Your task to perform on an android device: Open Youtube and go to "Your channel" Image 0: 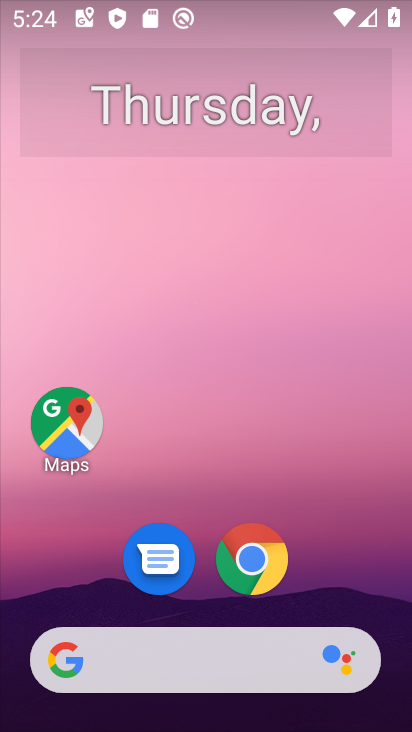
Step 0: drag from (246, 580) to (274, 9)
Your task to perform on an android device: Open Youtube and go to "Your channel" Image 1: 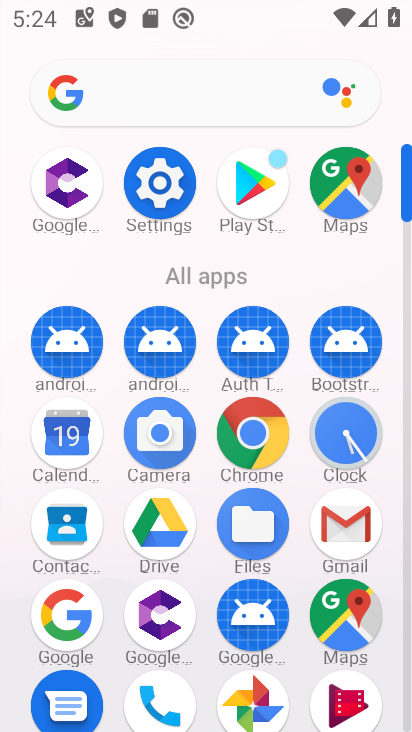
Step 1: drag from (295, 632) to (337, 101)
Your task to perform on an android device: Open Youtube and go to "Your channel" Image 2: 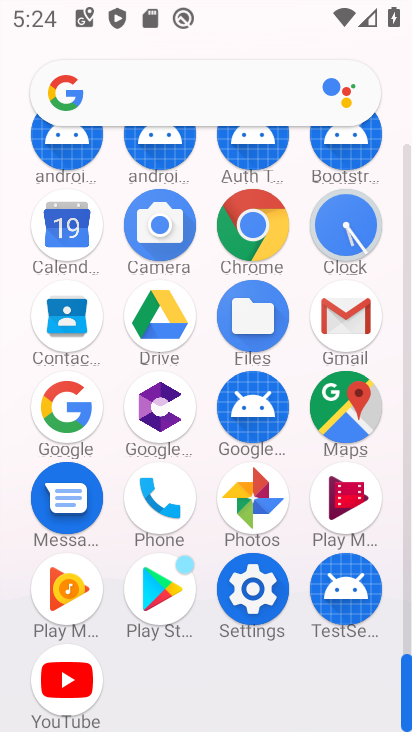
Step 2: click (47, 683)
Your task to perform on an android device: Open Youtube and go to "Your channel" Image 3: 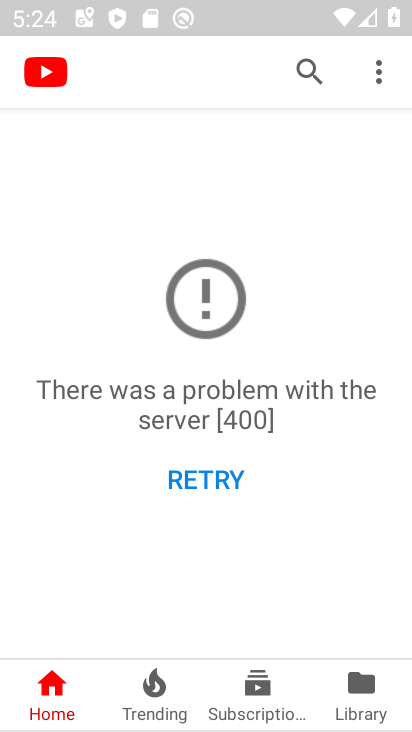
Step 3: click (209, 466)
Your task to perform on an android device: Open Youtube and go to "Your channel" Image 4: 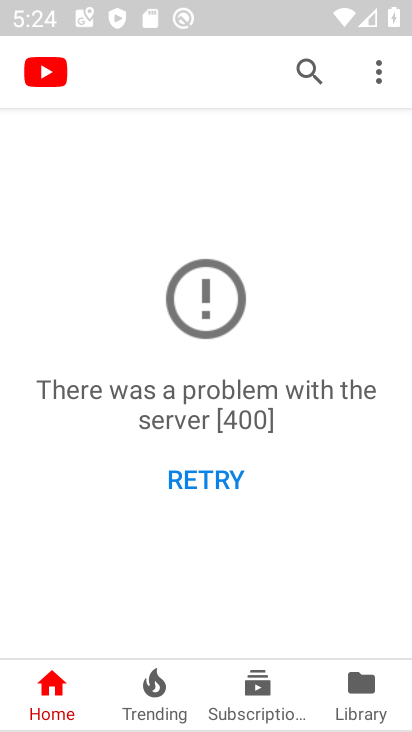
Step 4: click (209, 478)
Your task to perform on an android device: Open Youtube and go to "Your channel" Image 5: 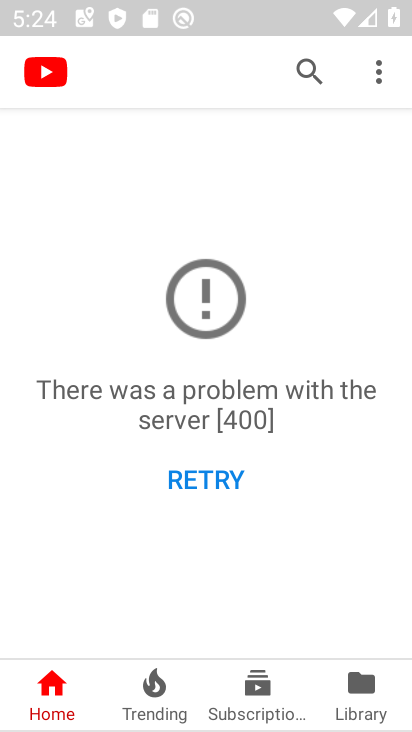
Step 5: click (210, 480)
Your task to perform on an android device: Open Youtube and go to "Your channel" Image 6: 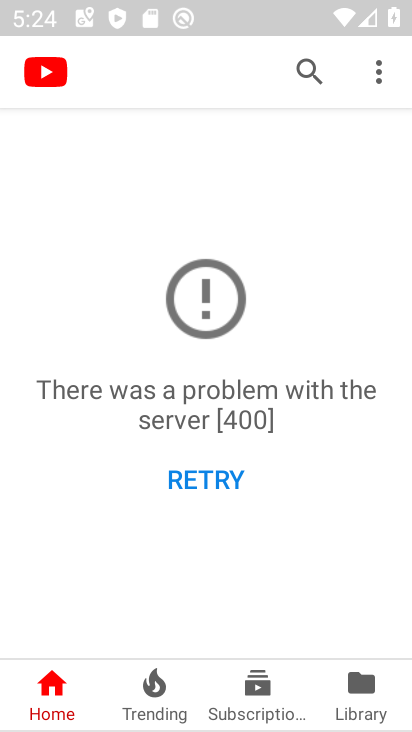
Step 6: click (210, 480)
Your task to perform on an android device: Open Youtube and go to "Your channel" Image 7: 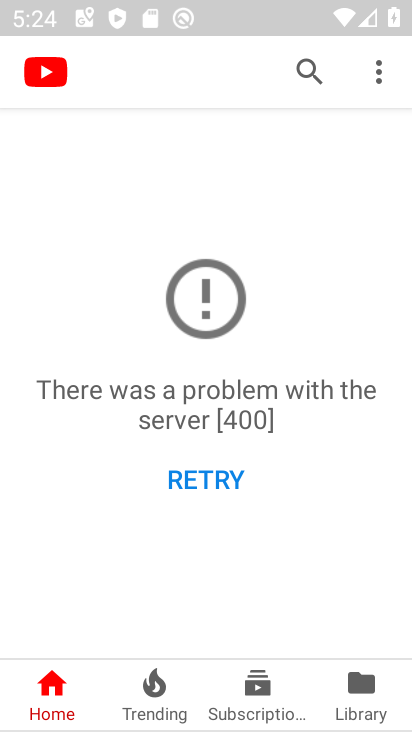
Step 7: click (211, 480)
Your task to perform on an android device: Open Youtube and go to "Your channel" Image 8: 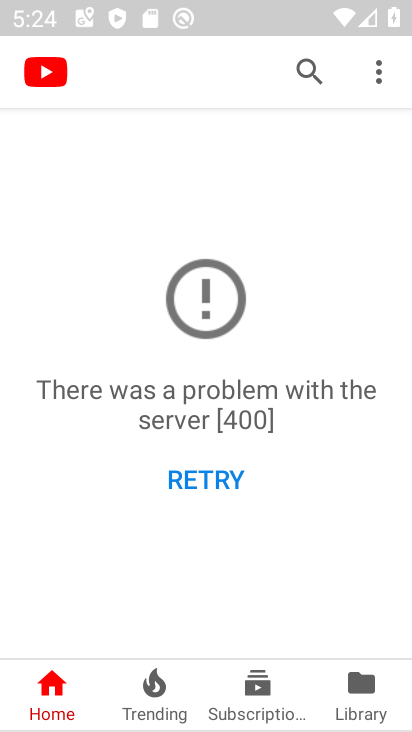
Step 8: click (211, 480)
Your task to perform on an android device: Open Youtube and go to "Your channel" Image 9: 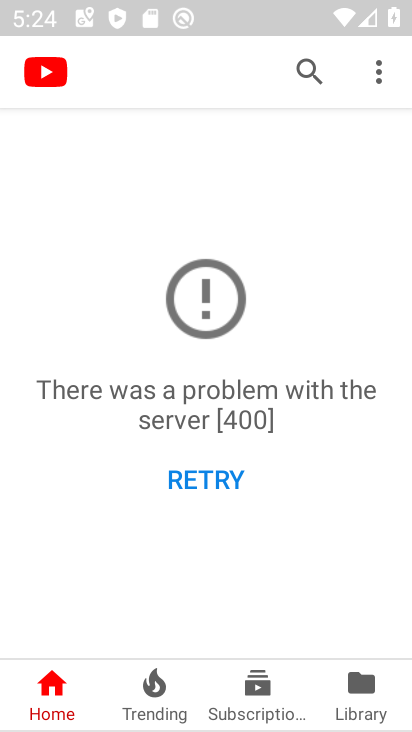
Step 9: task complete